Your task to perform on an android device: Open Google Maps and go to "Timeline" Image 0: 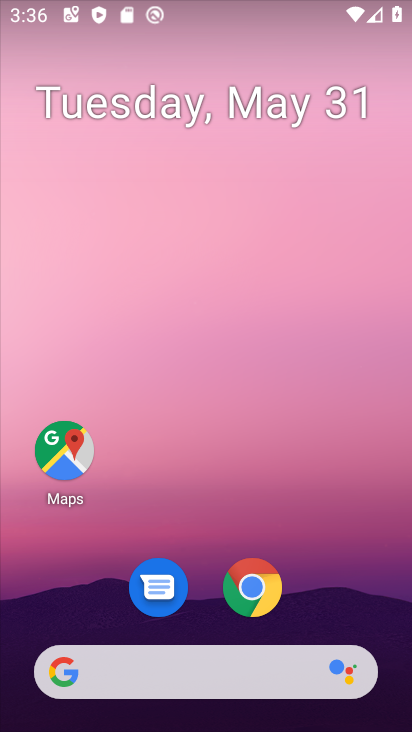
Step 0: drag from (201, 623) to (196, 136)
Your task to perform on an android device: Open Google Maps and go to "Timeline" Image 1: 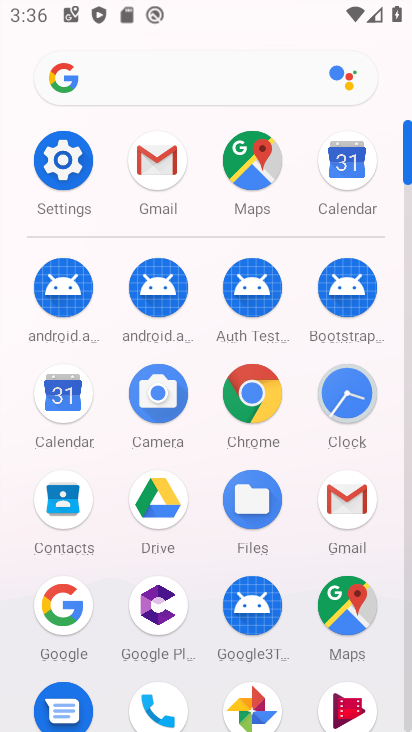
Step 1: click (251, 156)
Your task to perform on an android device: Open Google Maps and go to "Timeline" Image 2: 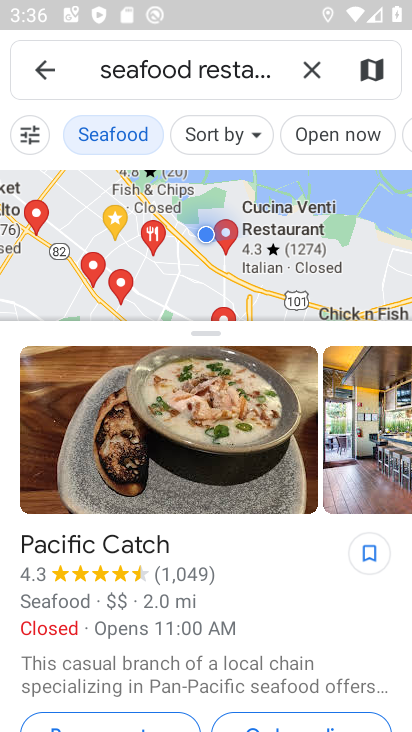
Step 2: click (37, 87)
Your task to perform on an android device: Open Google Maps and go to "Timeline" Image 3: 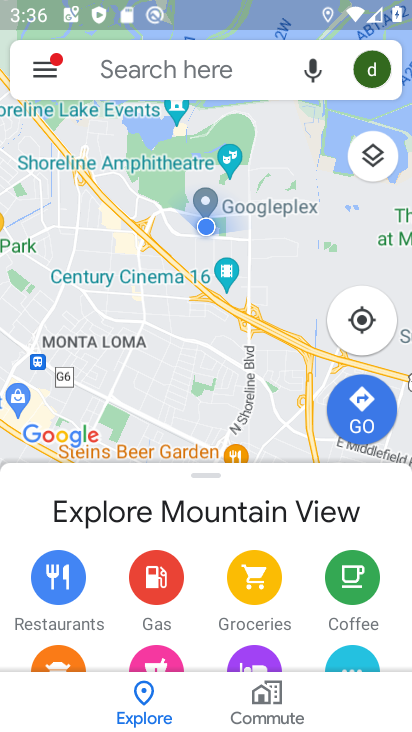
Step 3: click (41, 57)
Your task to perform on an android device: Open Google Maps and go to "Timeline" Image 4: 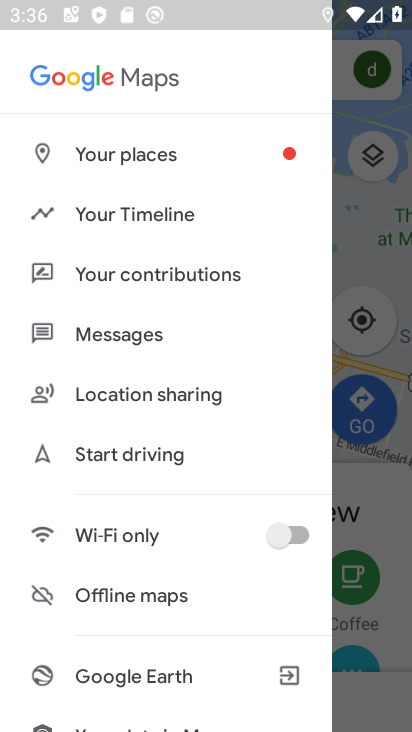
Step 4: click (101, 218)
Your task to perform on an android device: Open Google Maps and go to "Timeline" Image 5: 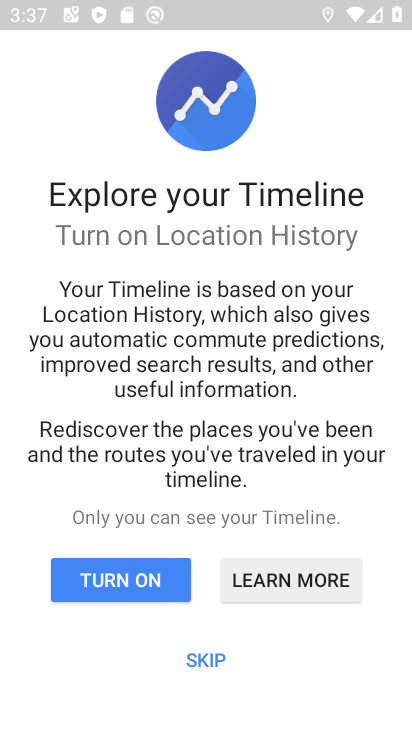
Step 5: click (185, 657)
Your task to perform on an android device: Open Google Maps and go to "Timeline" Image 6: 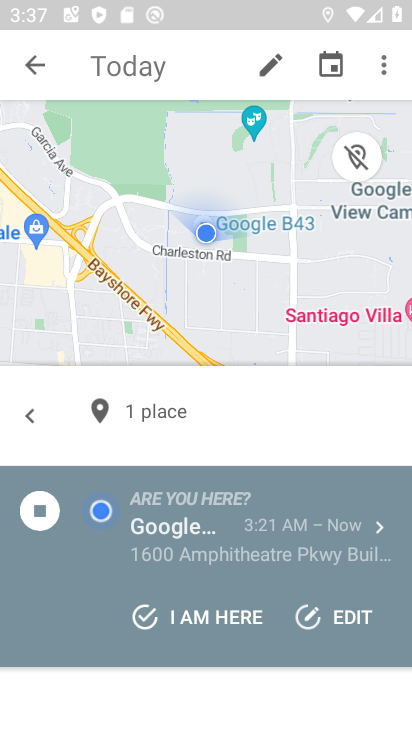
Step 6: task complete